Your task to perform on an android device: turn off javascript in the chrome app Image 0: 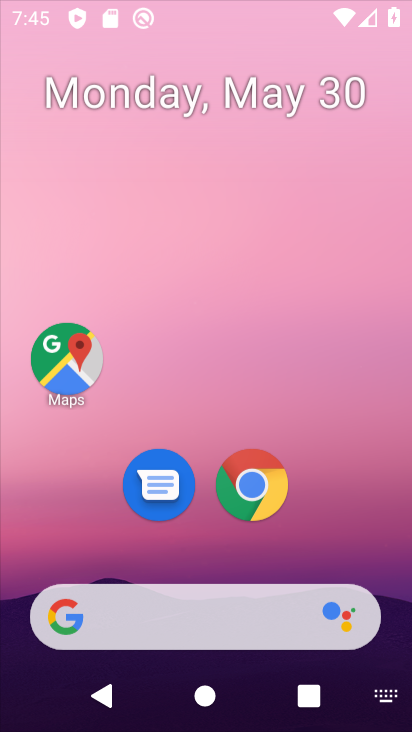
Step 0: drag from (328, 353) to (308, 176)
Your task to perform on an android device: turn off javascript in the chrome app Image 1: 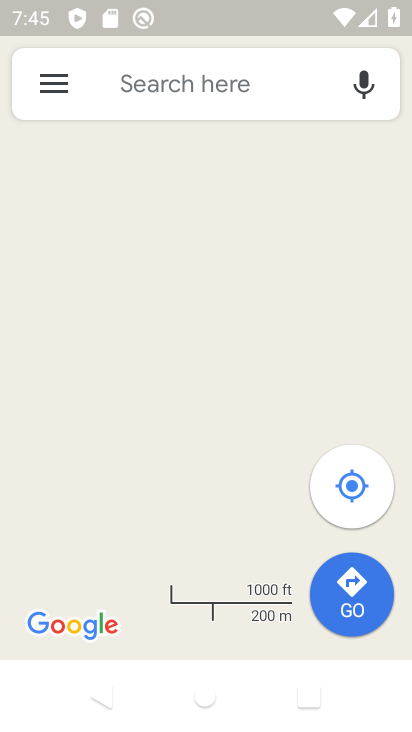
Step 1: press home button
Your task to perform on an android device: turn off javascript in the chrome app Image 2: 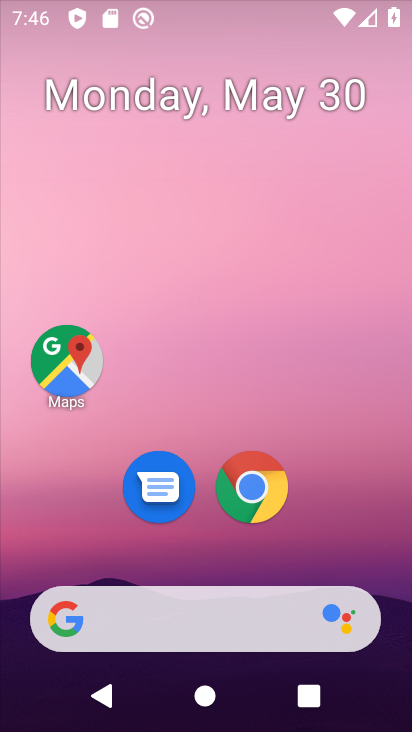
Step 2: drag from (315, 439) to (312, 202)
Your task to perform on an android device: turn off javascript in the chrome app Image 3: 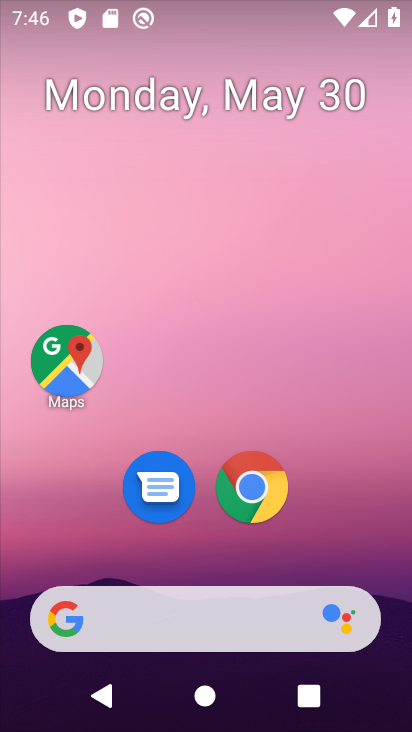
Step 3: drag from (250, 525) to (252, 225)
Your task to perform on an android device: turn off javascript in the chrome app Image 4: 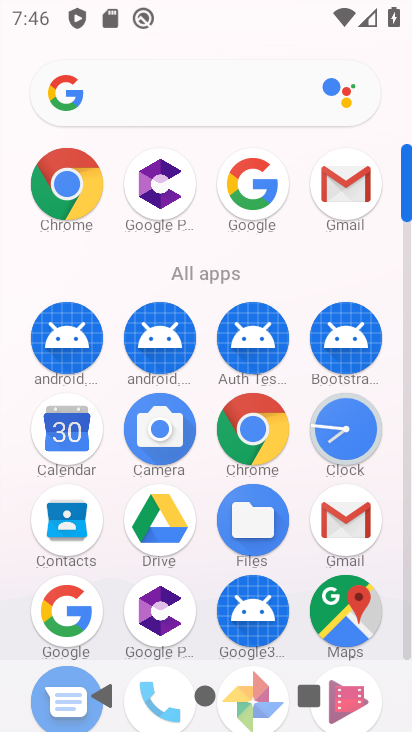
Step 4: drag from (206, 496) to (213, 171)
Your task to perform on an android device: turn off javascript in the chrome app Image 5: 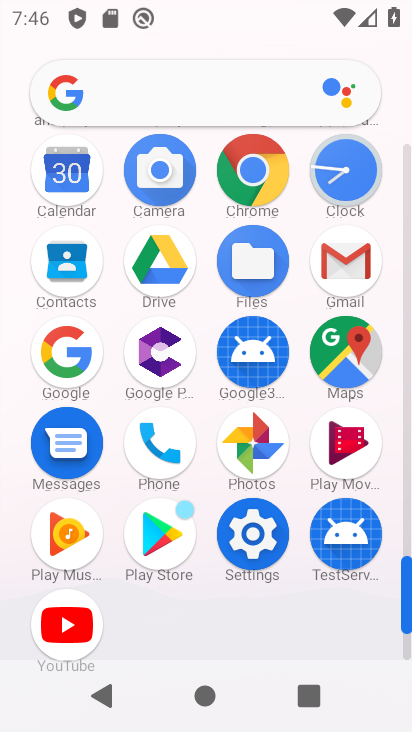
Step 5: click (259, 525)
Your task to perform on an android device: turn off javascript in the chrome app Image 6: 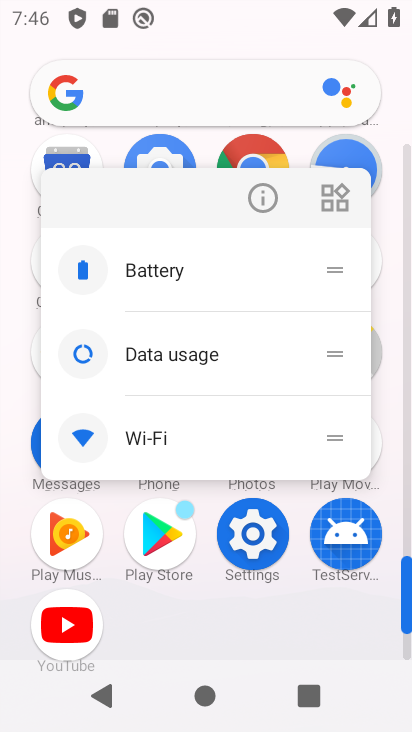
Step 6: click (127, 637)
Your task to perform on an android device: turn off javascript in the chrome app Image 7: 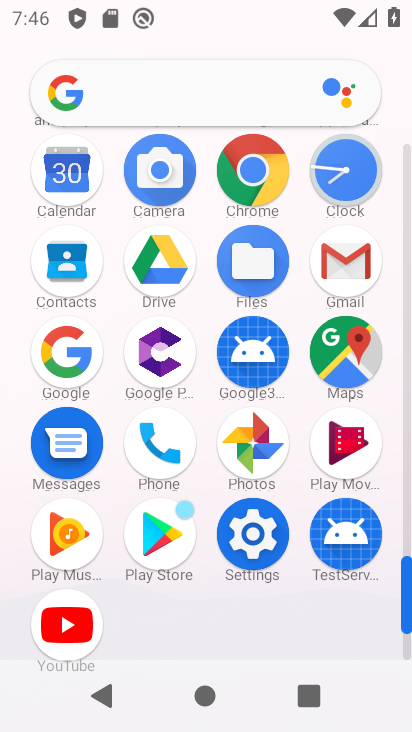
Step 7: click (241, 165)
Your task to perform on an android device: turn off javascript in the chrome app Image 8: 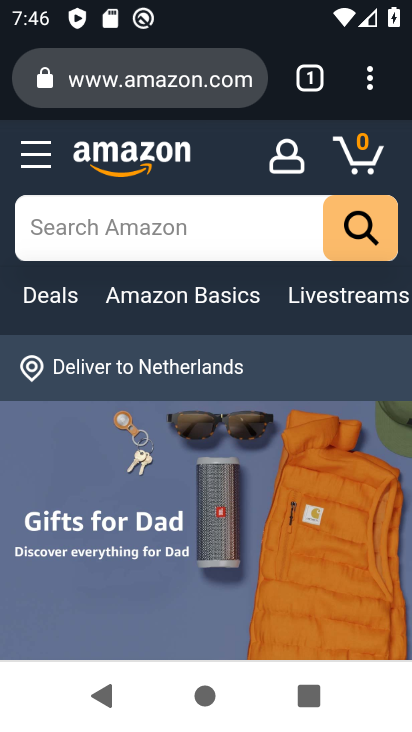
Step 8: click (371, 82)
Your task to perform on an android device: turn off javascript in the chrome app Image 9: 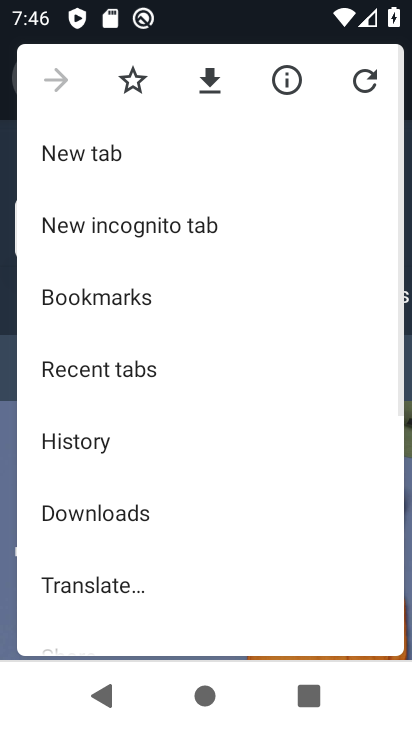
Step 9: drag from (222, 514) to (261, 189)
Your task to perform on an android device: turn off javascript in the chrome app Image 10: 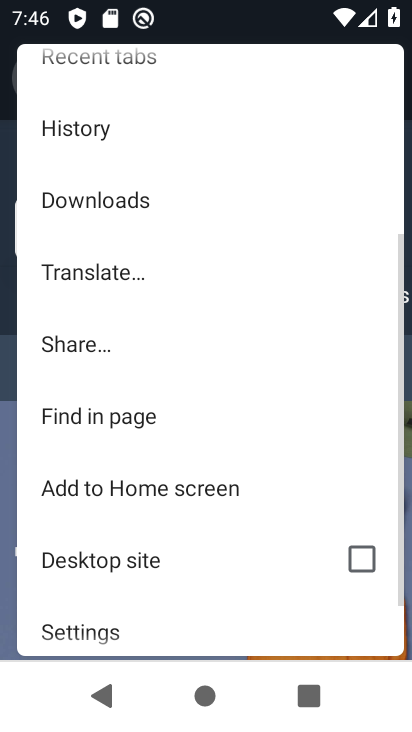
Step 10: drag from (169, 564) to (188, 286)
Your task to perform on an android device: turn off javascript in the chrome app Image 11: 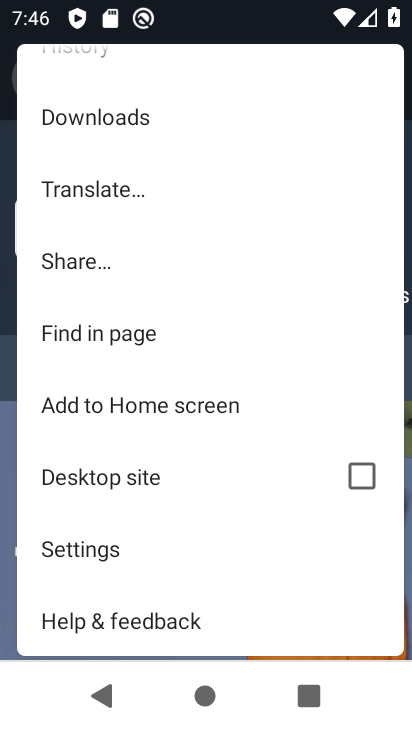
Step 11: click (121, 537)
Your task to perform on an android device: turn off javascript in the chrome app Image 12: 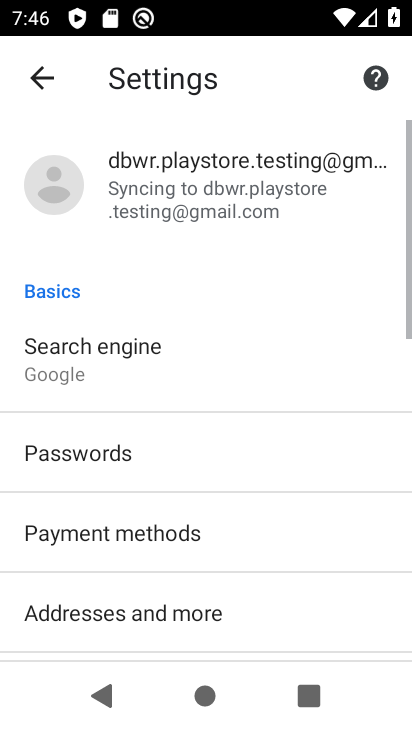
Step 12: drag from (162, 593) to (226, 212)
Your task to perform on an android device: turn off javascript in the chrome app Image 13: 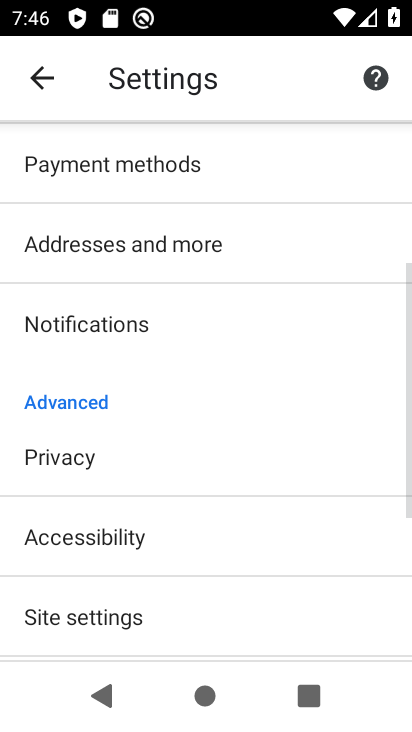
Step 13: drag from (189, 536) to (225, 281)
Your task to perform on an android device: turn off javascript in the chrome app Image 14: 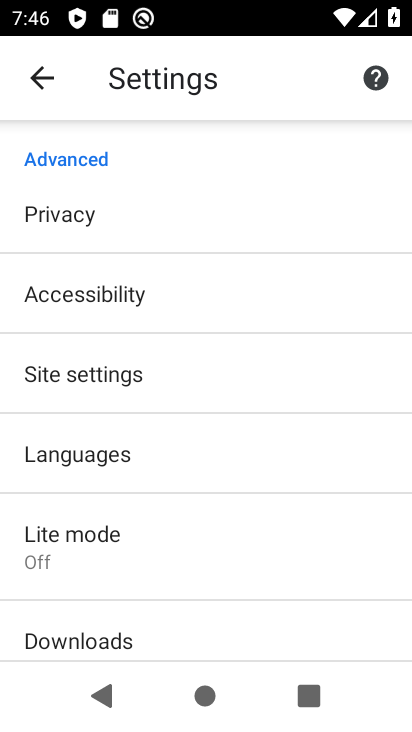
Step 14: click (149, 366)
Your task to perform on an android device: turn off javascript in the chrome app Image 15: 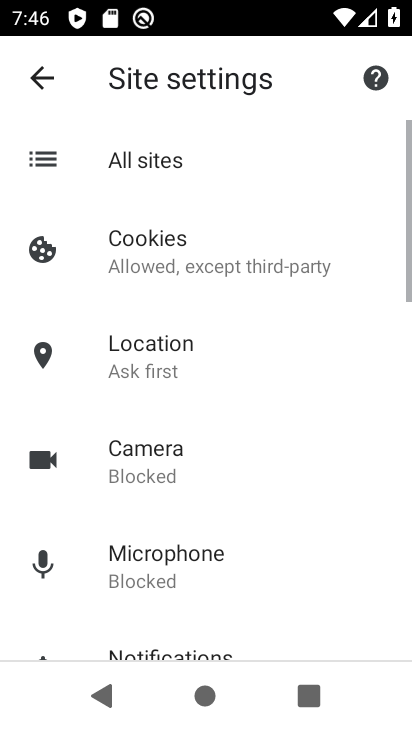
Step 15: drag from (208, 607) to (240, 260)
Your task to perform on an android device: turn off javascript in the chrome app Image 16: 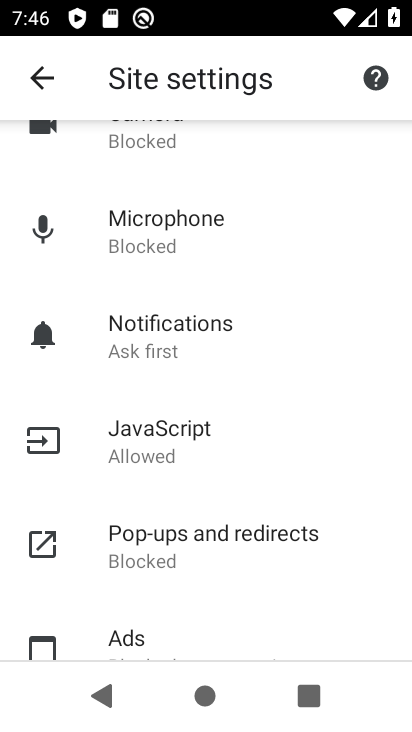
Step 16: click (142, 427)
Your task to perform on an android device: turn off javascript in the chrome app Image 17: 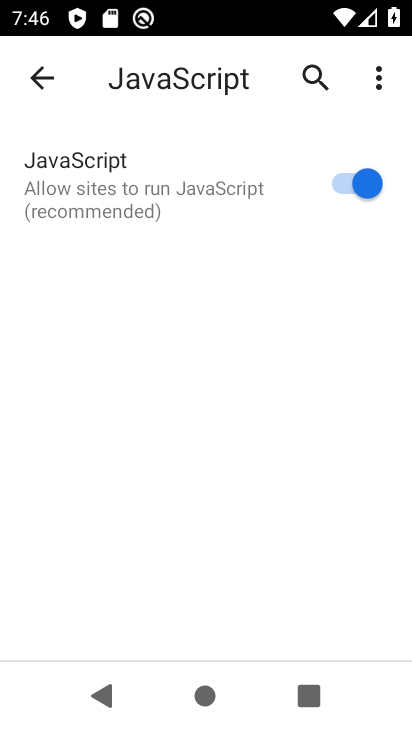
Step 17: click (360, 175)
Your task to perform on an android device: turn off javascript in the chrome app Image 18: 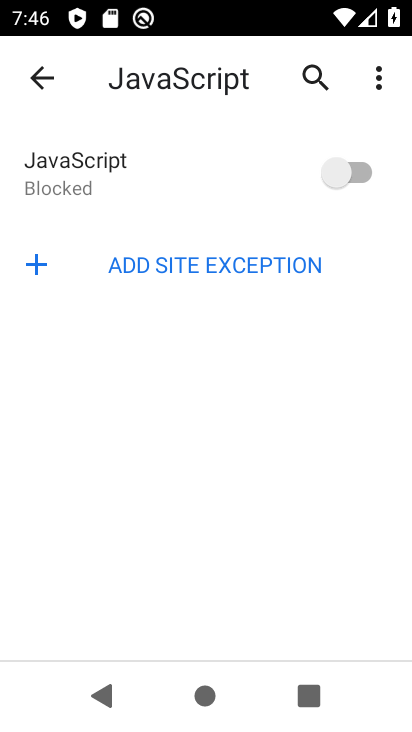
Step 18: task complete